Your task to perform on an android device: See recent photos Image 0: 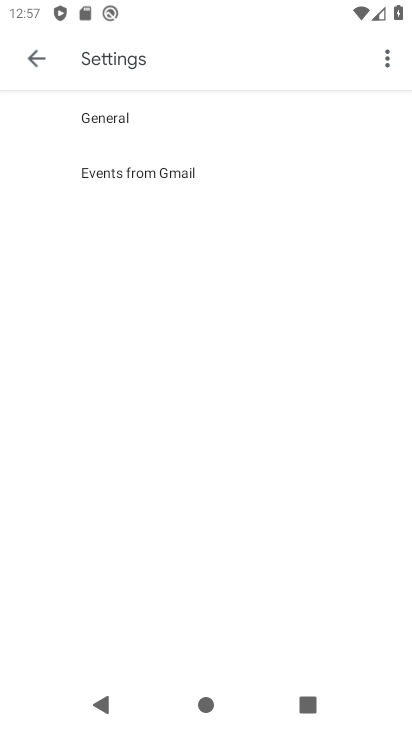
Step 0: press home button
Your task to perform on an android device: See recent photos Image 1: 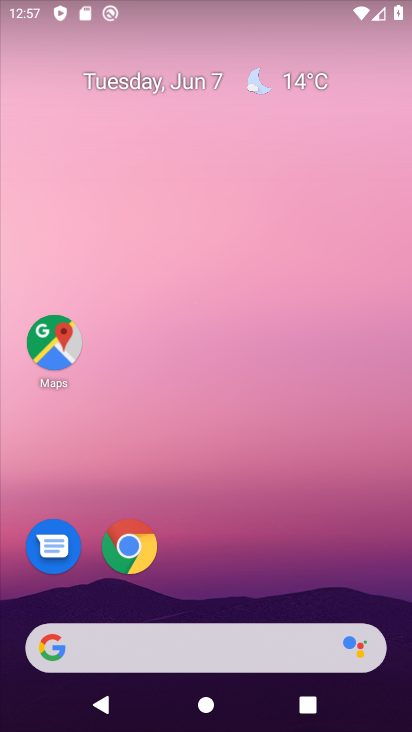
Step 1: drag from (207, 606) to (163, 9)
Your task to perform on an android device: See recent photos Image 2: 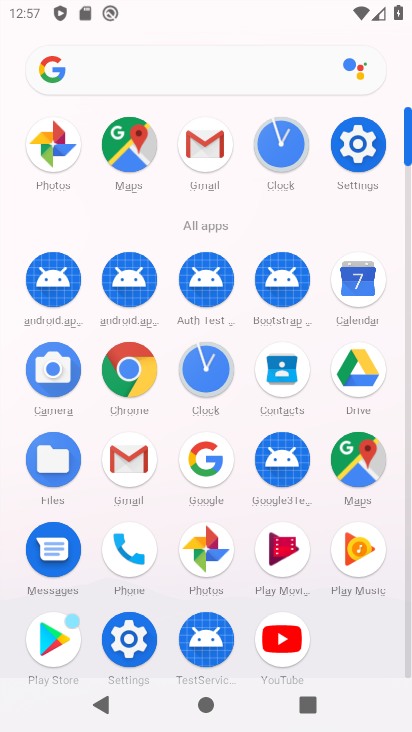
Step 2: click (211, 553)
Your task to perform on an android device: See recent photos Image 3: 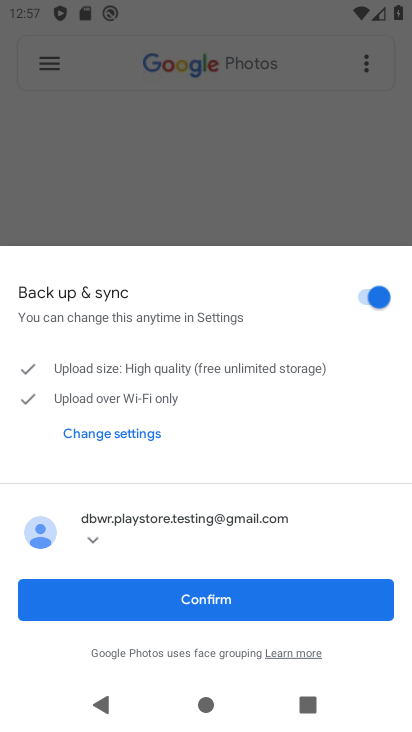
Step 3: click (167, 591)
Your task to perform on an android device: See recent photos Image 4: 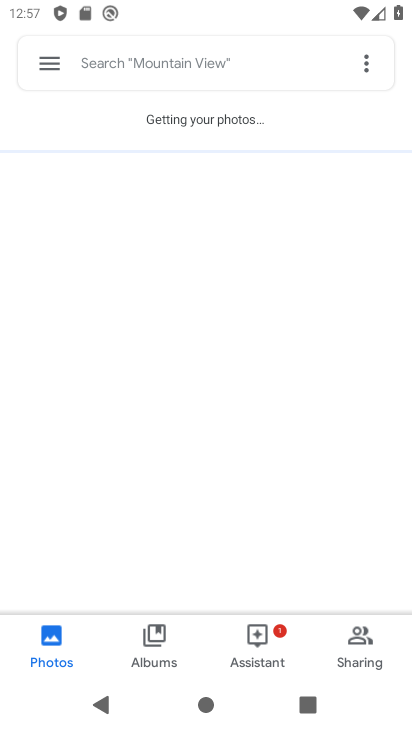
Step 4: task complete